Your task to perform on an android device: open a new tab in the chrome app Image 0: 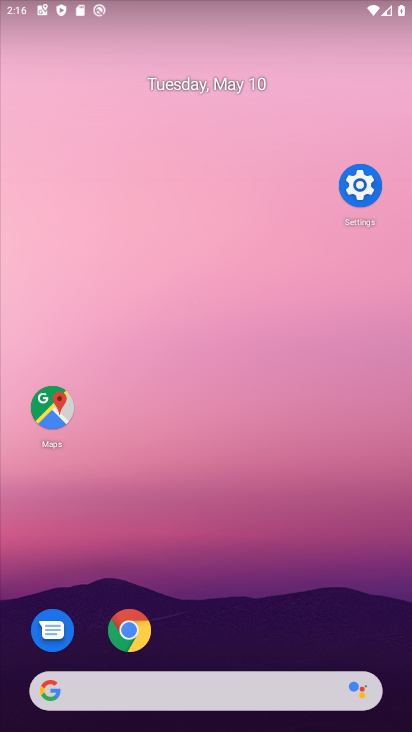
Step 0: click (125, 14)
Your task to perform on an android device: open a new tab in the chrome app Image 1: 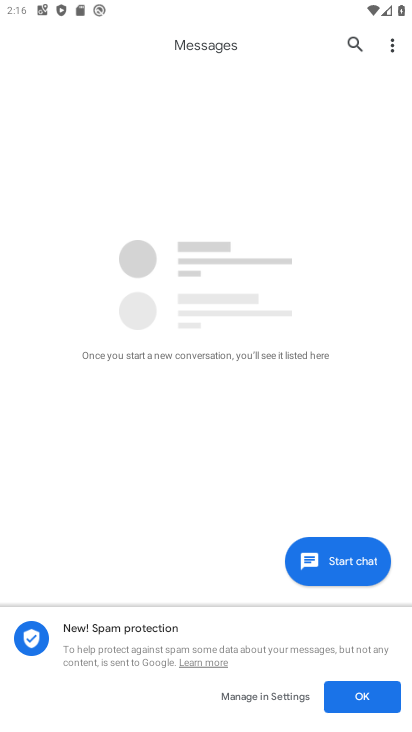
Step 1: click (379, 696)
Your task to perform on an android device: open a new tab in the chrome app Image 2: 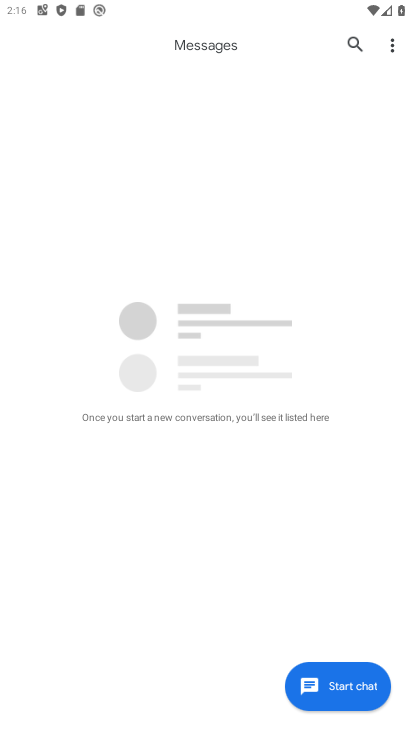
Step 2: press home button
Your task to perform on an android device: open a new tab in the chrome app Image 3: 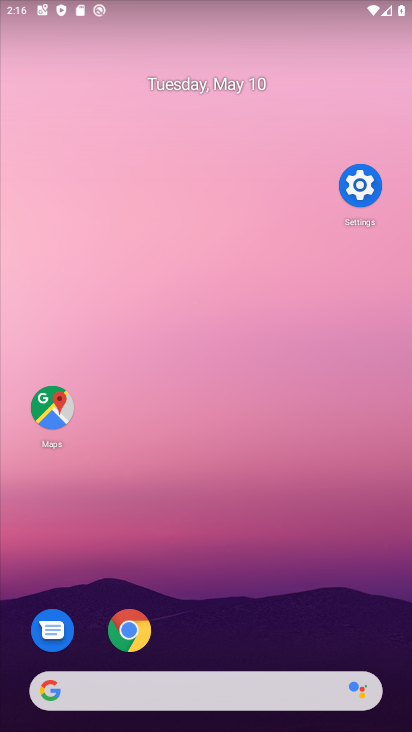
Step 3: drag from (285, 574) to (59, 47)
Your task to perform on an android device: open a new tab in the chrome app Image 4: 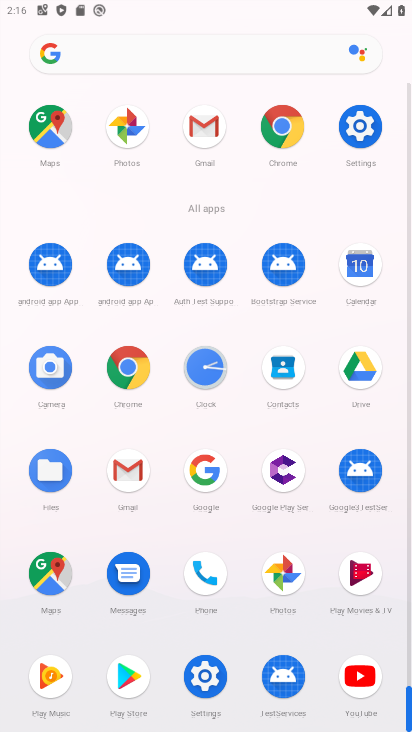
Step 4: click (135, 373)
Your task to perform on an android device: open a new tab in the chrome app Image 5: 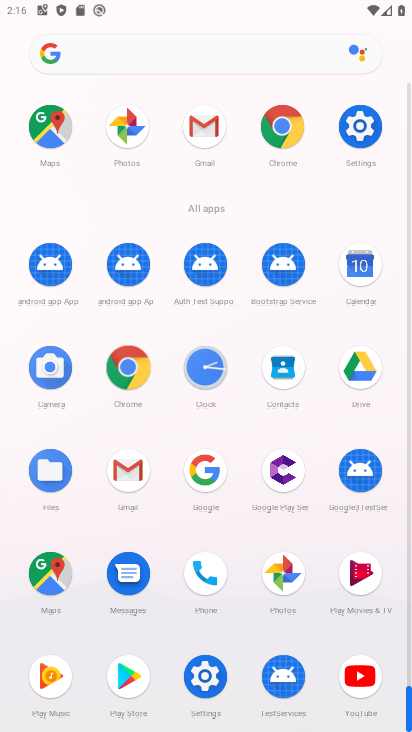
Step 5: click (134, 372)
Your task to perform on an android device: open a new tab in the chrome app Image 6: 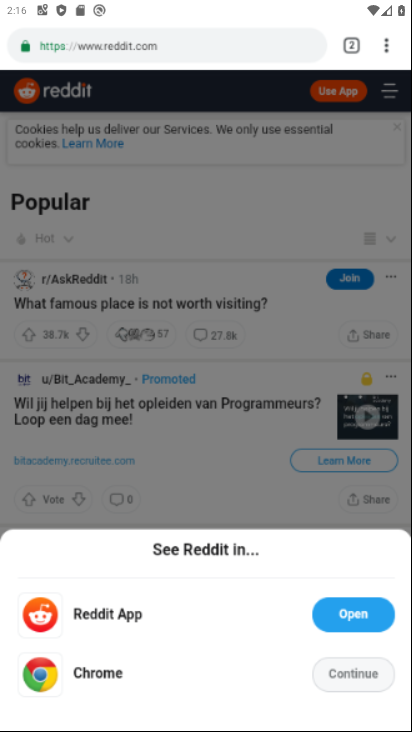
Step 6: click (130, 359)
Your task to perform on an android device: open a new tab in the chrome app Image 7: 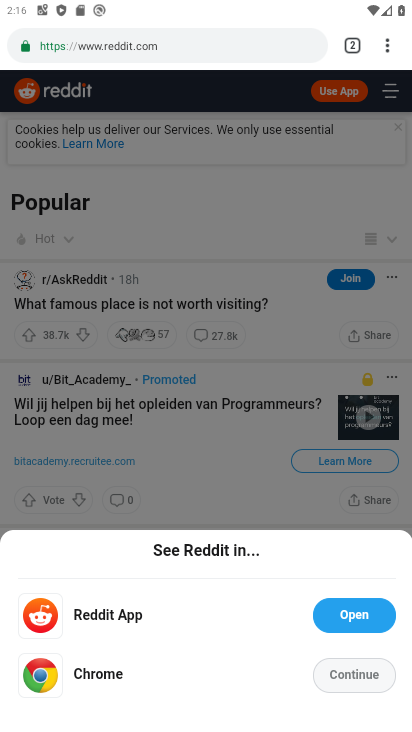
Step 7: drag from (385, 47) to (229, 141)
Your task to perform on an android device: open a new tab in the chrome app Image 8: 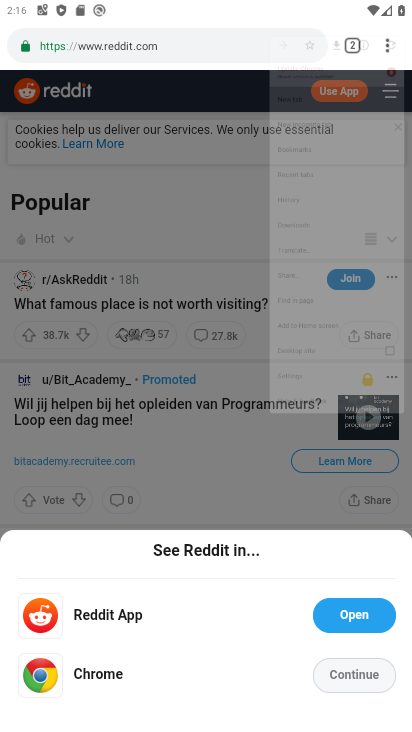
Step 8: click (229, 141)
Your task to perform on an android device: open a new tab in the chrome app Image 9: 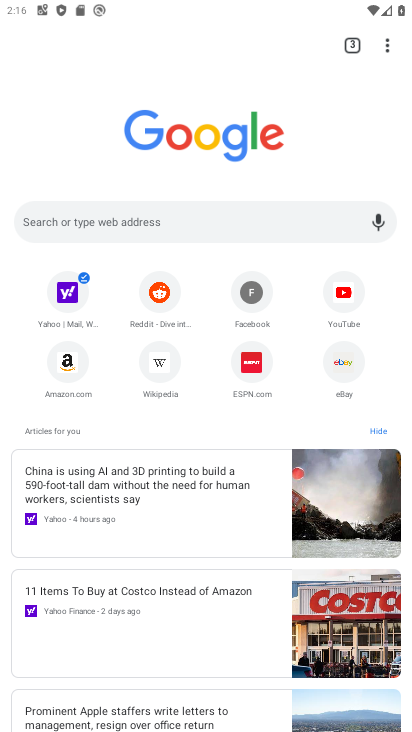
Step 9: task complete